Your task to perform on an android device: Go to wifi settings Image 0: 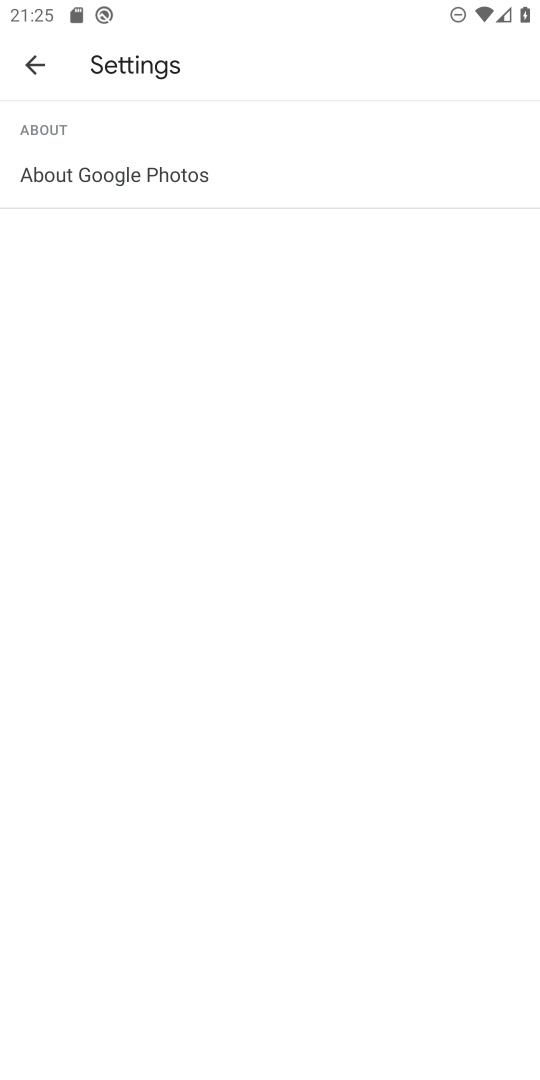
Step 0: press home button
Your task to perform on an android device: Go to wifi settings Image 1: 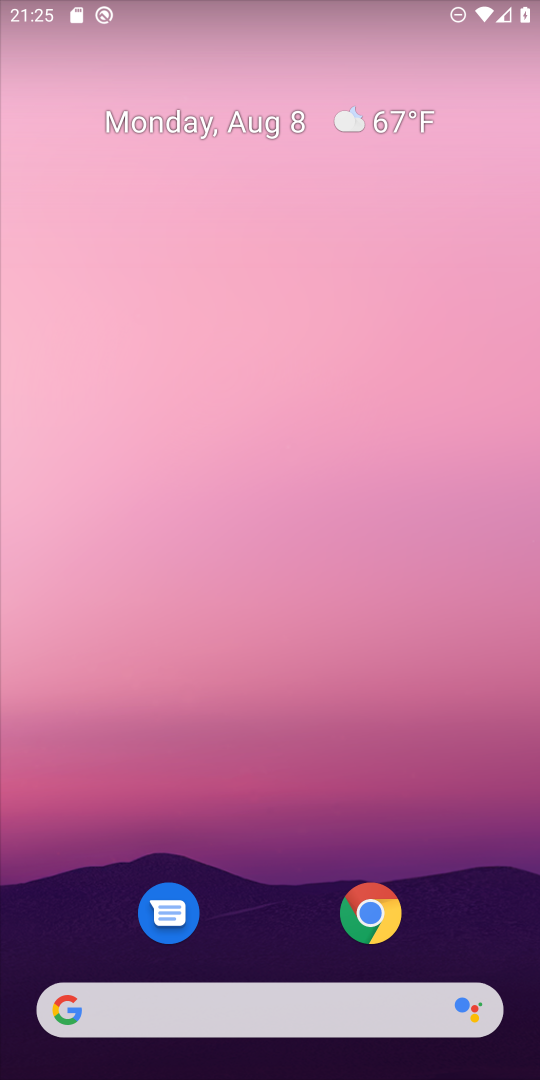
Step 1: drag from (245, 1022) to (257, 215)
Your task to perform on an android device: Go to wifi settings Image 2: 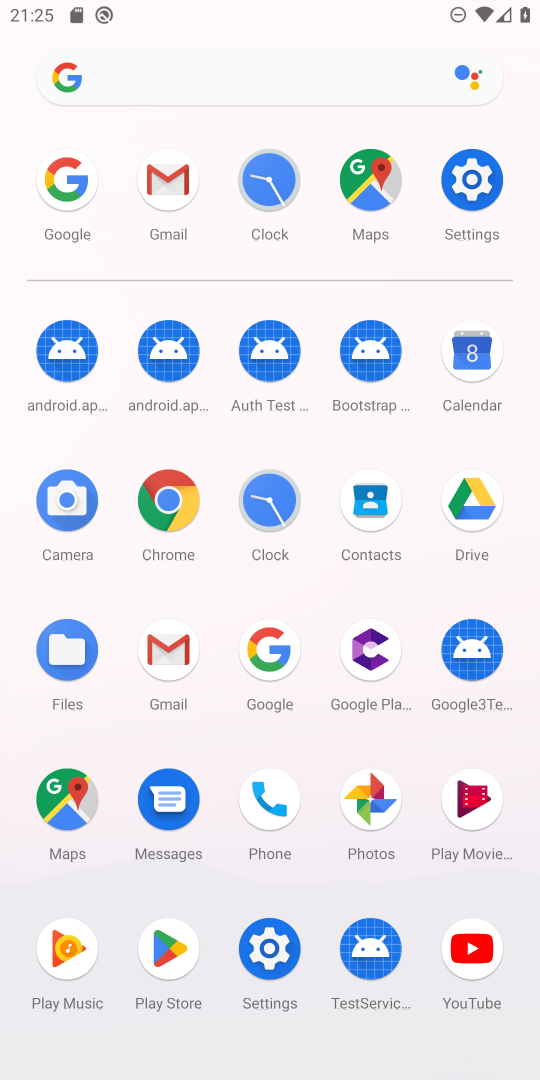
Step 2: click (470, 180)
Your task to perform on an android device: Go to wifi settings Image 3: 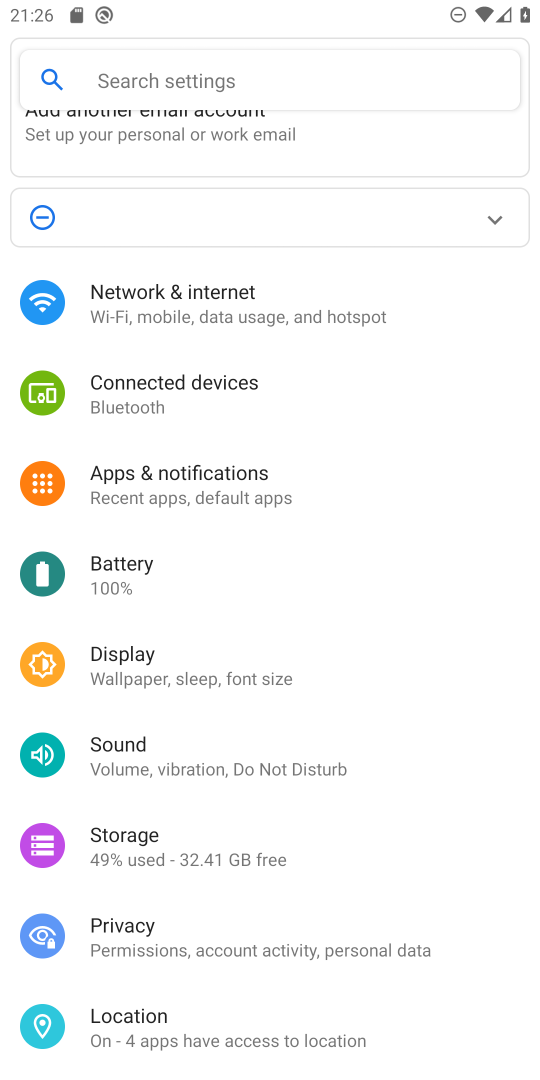
Step 3: click (250, 312)
Your task to perform on an android device: Go to wifi settings Image 4: 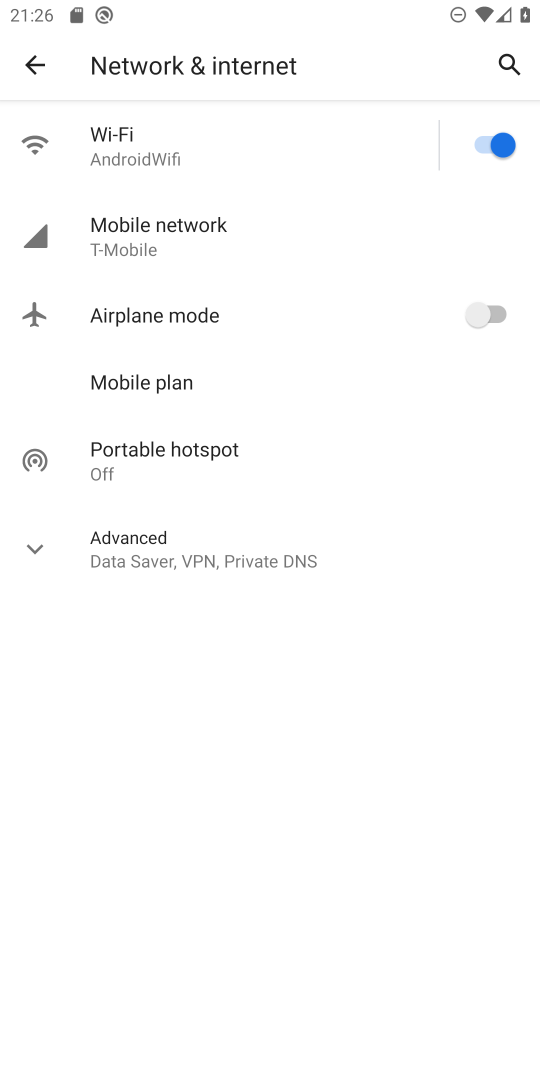
Step 4: click (120, 165)
Your task to perform on an android device: Go to wifi settings Image 5: 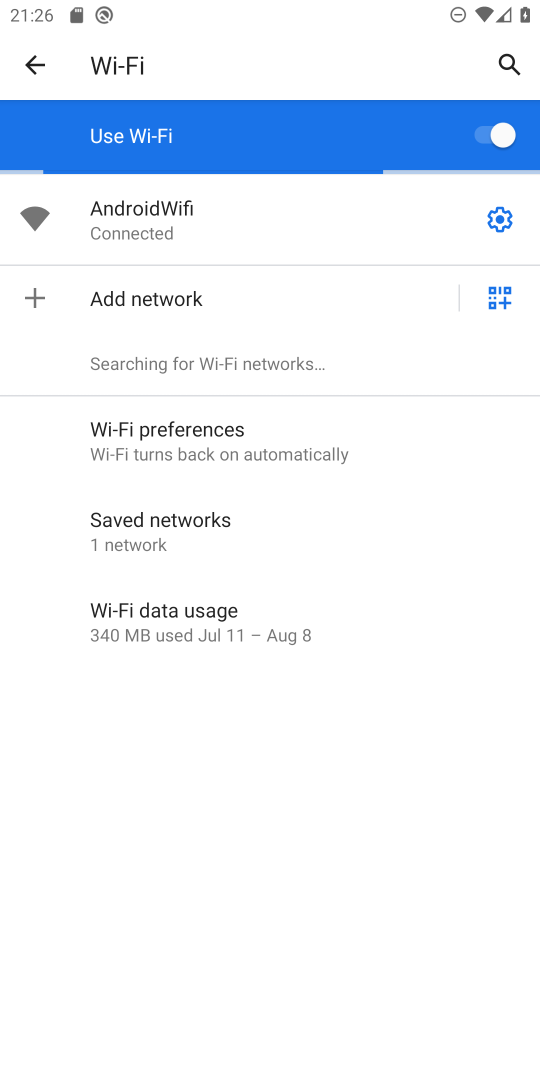
Step 5: click (503, 217)
Your task to perform on an android device: Go to wifi settings Image 6: 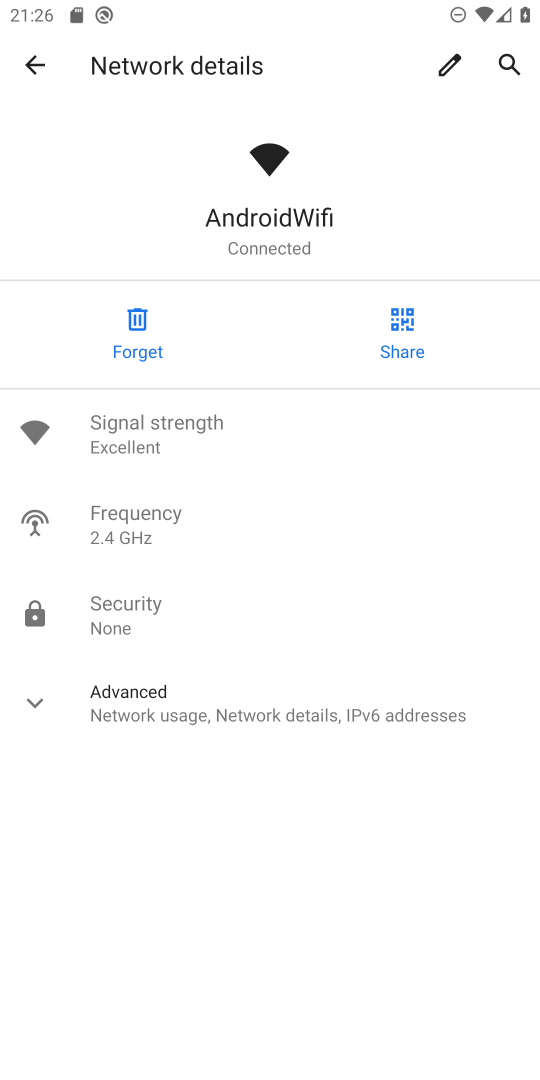
Step 6: task complete